Your task to perform on an android device: turn off notifications in google photos Image 0: 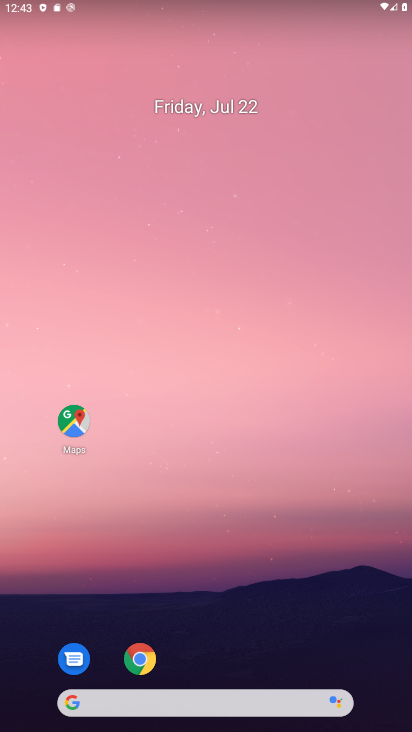
Step 0: task complete